Your task to perform on an android device: turn on wifi Image 0: 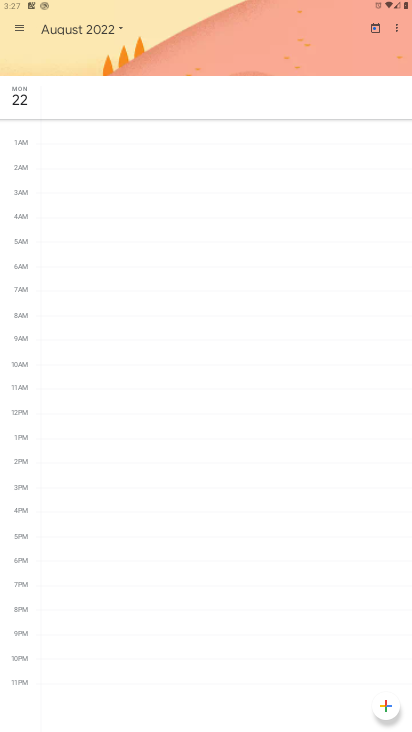
Step 0: press home button
Your task to perform on an android device: turn on wifi Image 1: 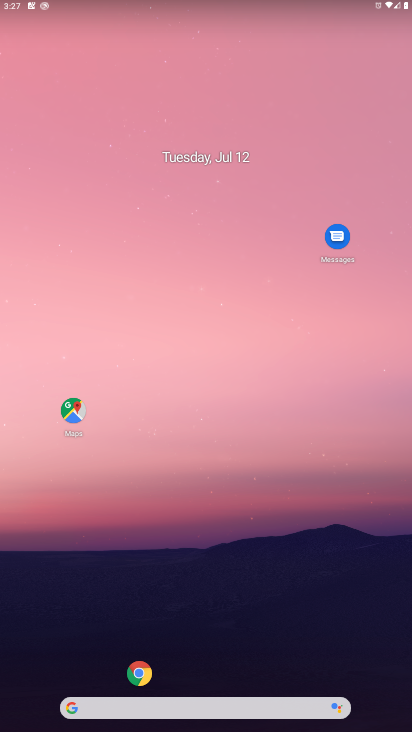
Step 1: drag from (28, 715) to (405, 163)
Your task to perform on an android device: turn on wifi Image 2: 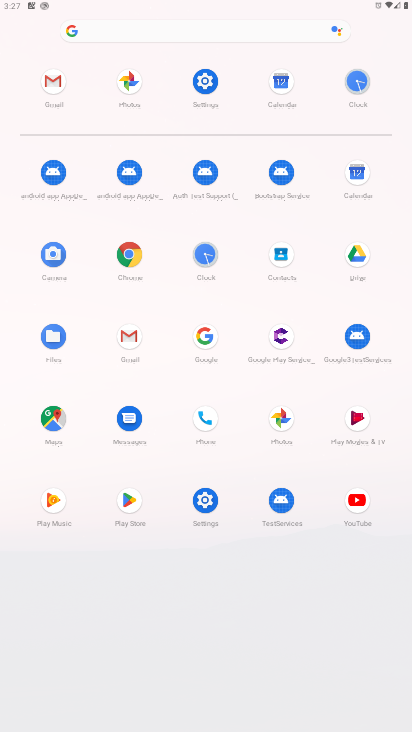
Step 2: click (208, 508)
Your task to perform on an android device: turn on wifi Image 3: 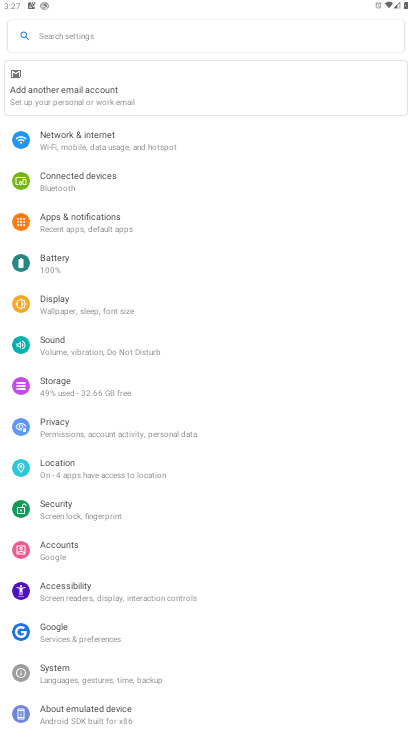
Step 3: click (122, 133)
Your task to perform on an android device: turn on wifi Image 4: 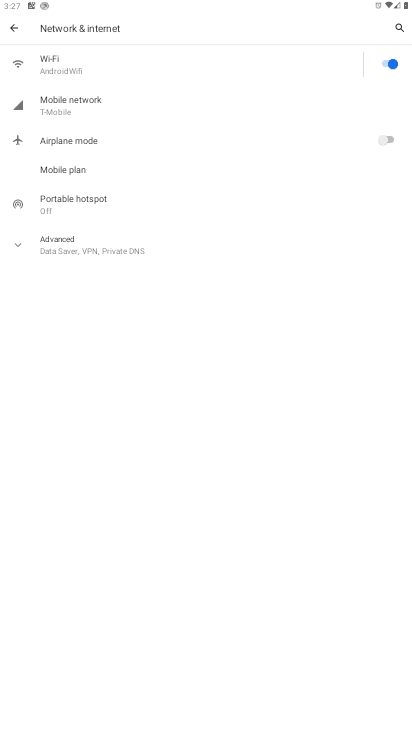
Step 4: task complete